Your task to perform on an android device: Open Android settings Image 0: 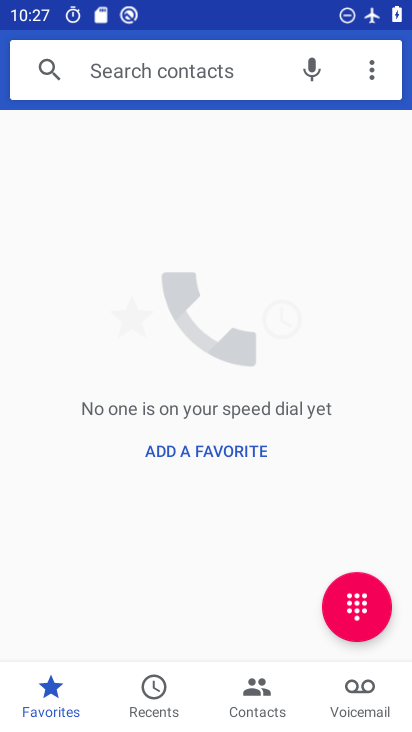
Step 0: press home button
Your task to perform on an android device: Open Android settings Image 1: 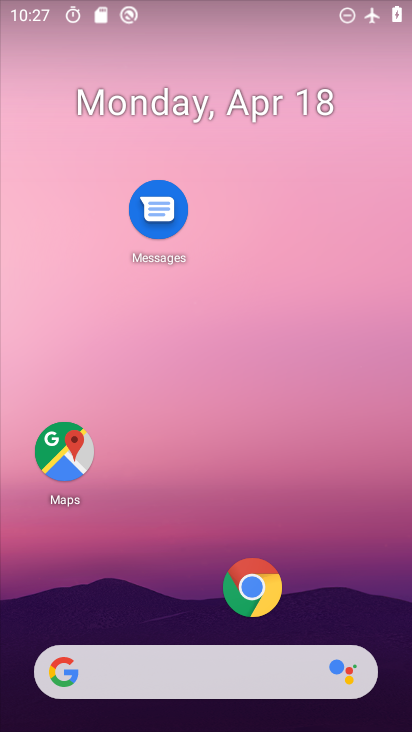
Step 1: drag from (154, 620) to (229, 134)
Your task to perform on an android device: Open Android settings Image 2: 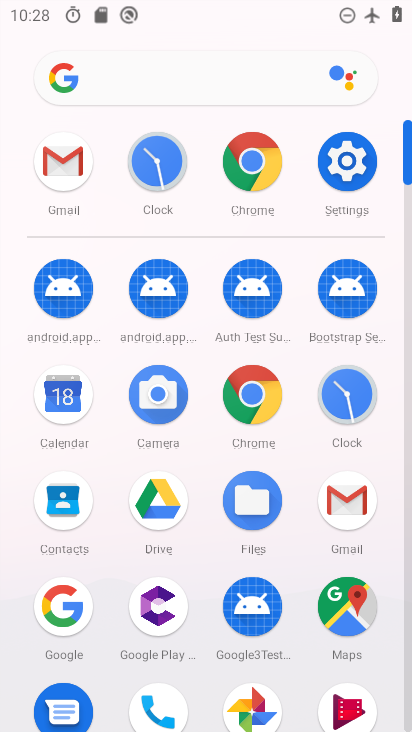
Step 2: click (352, 184)
Your task to perform on an android device: Open Android settings Image 3: 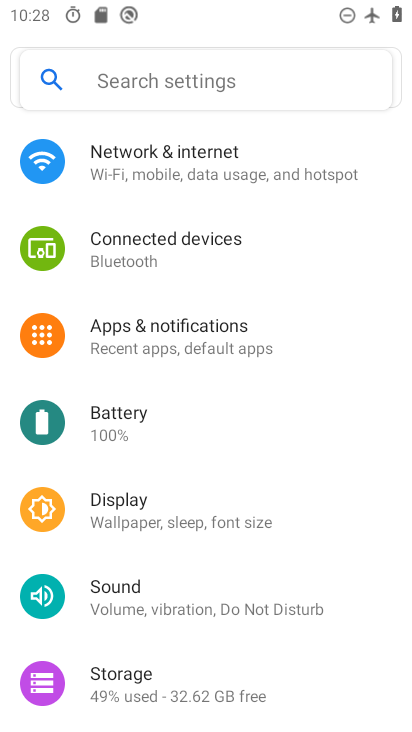
Step 3: drag from (198, 651) to (251, 94)
Your task to perform on an android device: Open Android settings Image 4: 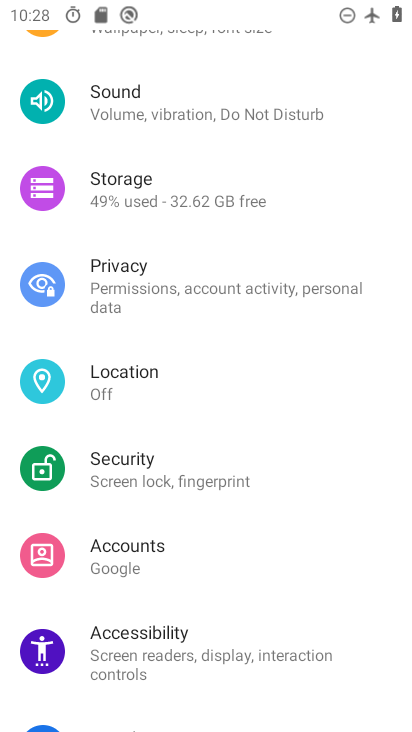
Step 4: drag from (123, 638) to (236, 1)
Your task to perform on an android device: Open Android settings Image 5: 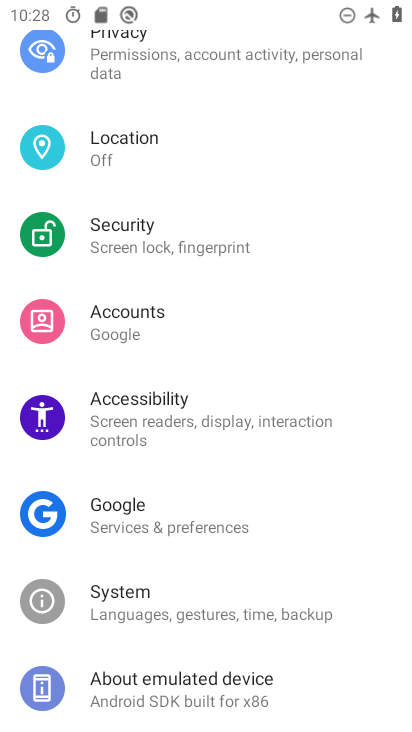
Step 5: click (177, 692)
Your task to perform on an android device: Open Android settings Image 6: 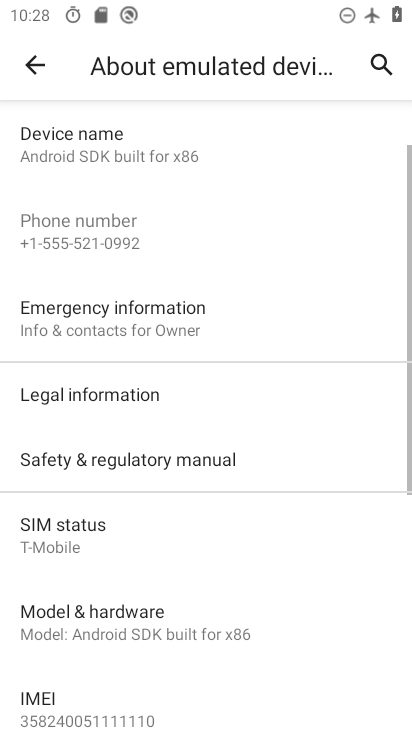
Step 6: drag from (164, 609) to (210, 249)
Your task to perform on an android device: Open Android settings Image 7: 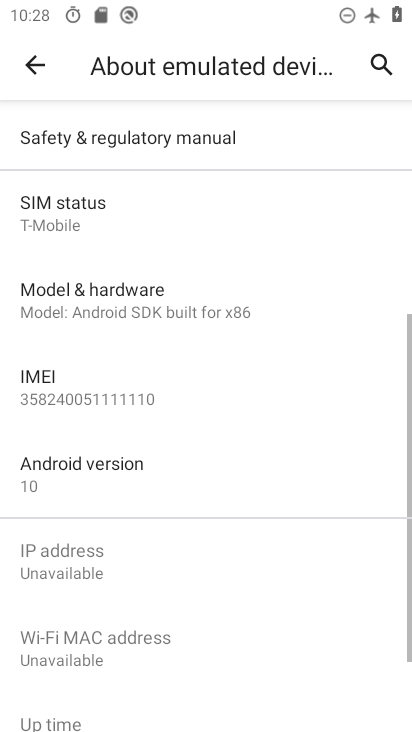
Step 7: click (109, 480)
Your task to perform on an android device: Open Android settings Image 8: 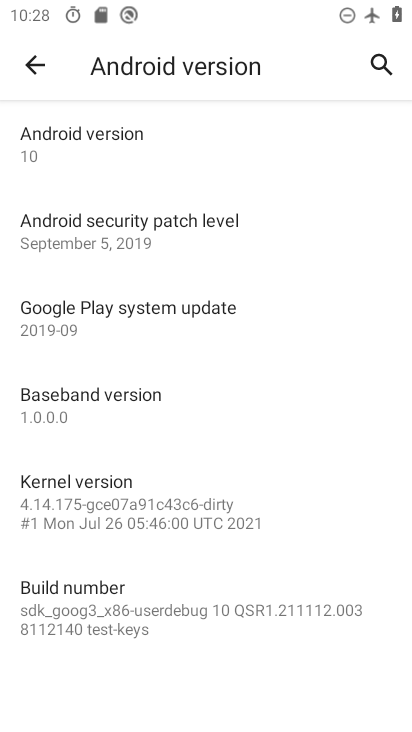
Step 8: task complete